Your task to perform on an android device: set the timer Image 0: 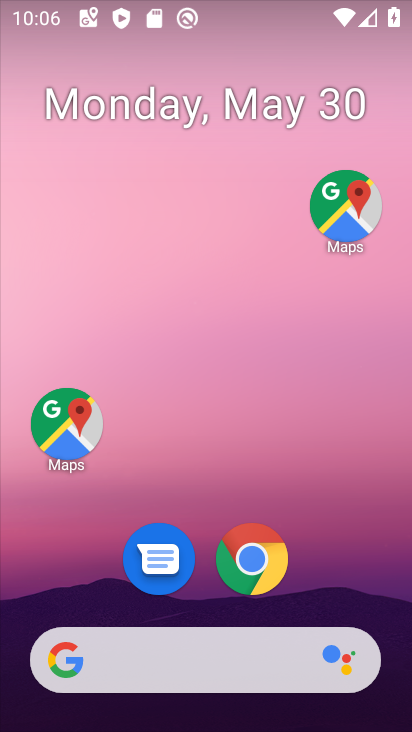
Step 0: drag from (322, 537) to (262, 141)
Your task to perform on an android device: set the timer Image 1: 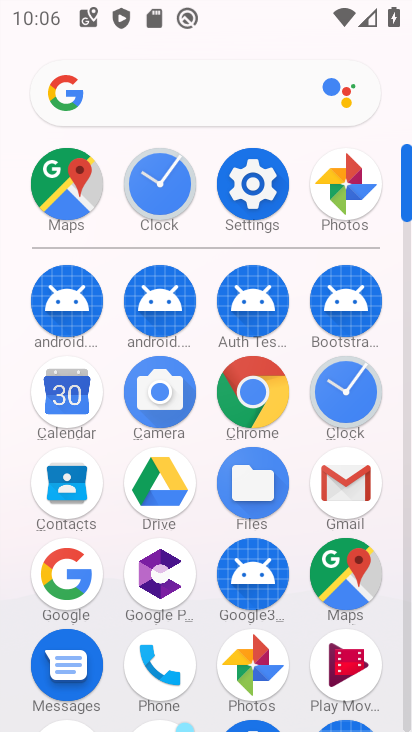
Step 1: click (349, 403)
Your task to perform on an android device: set the timer Image 2: 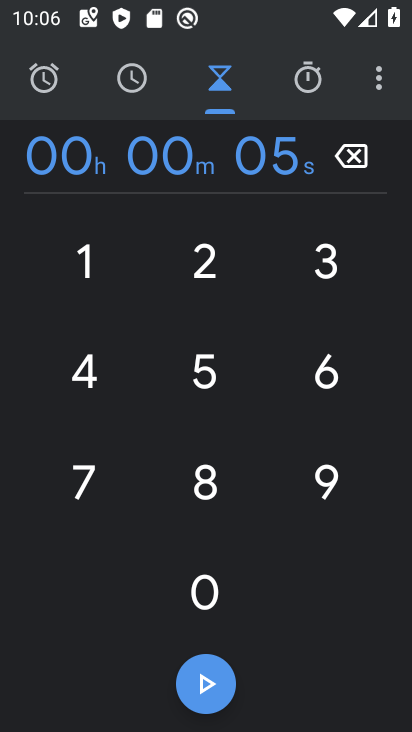
Step 2: task complete